Your task to perform on an android device: Open eBay Image 0: 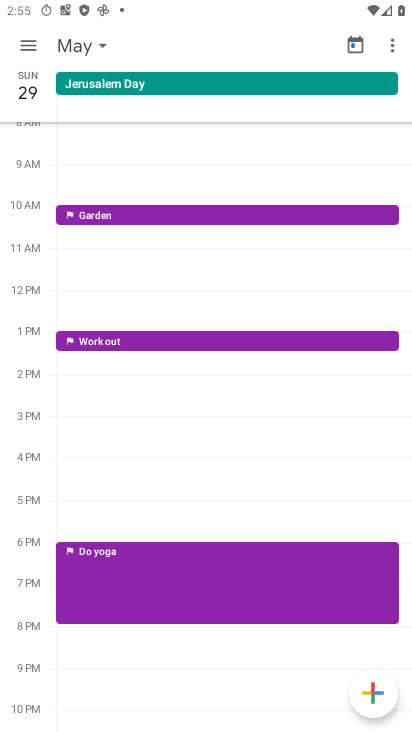
Step 0: press home button
Your task to perform on an android device: Open eBay Image 1: 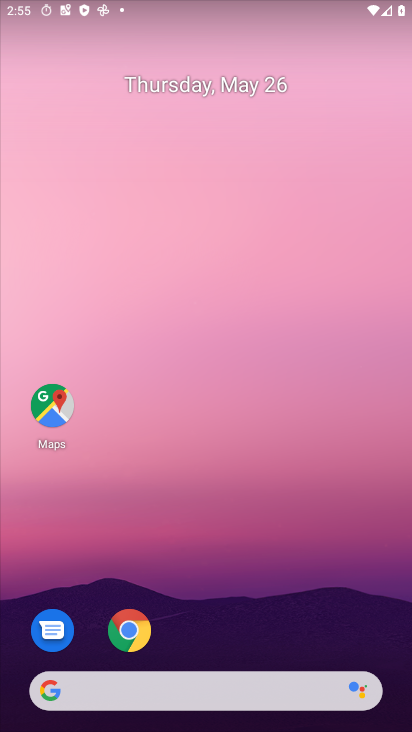
Step 1: click (129, 627)
Your task to perform on an android device: Open eBay Image 2: 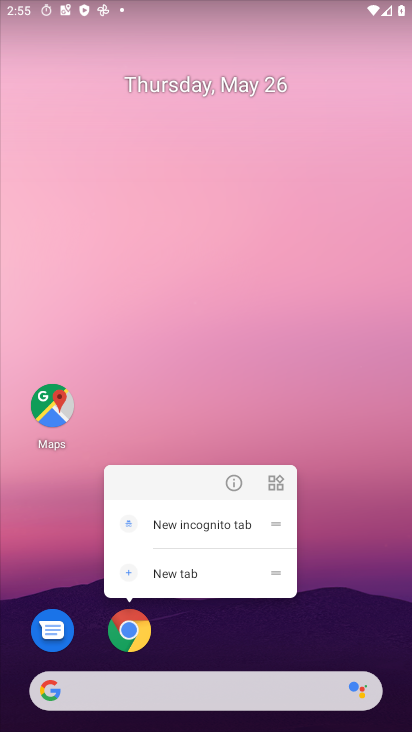
Step 2: click (142, 638)
Your task to perform on an android device: Open eBay Image 3: 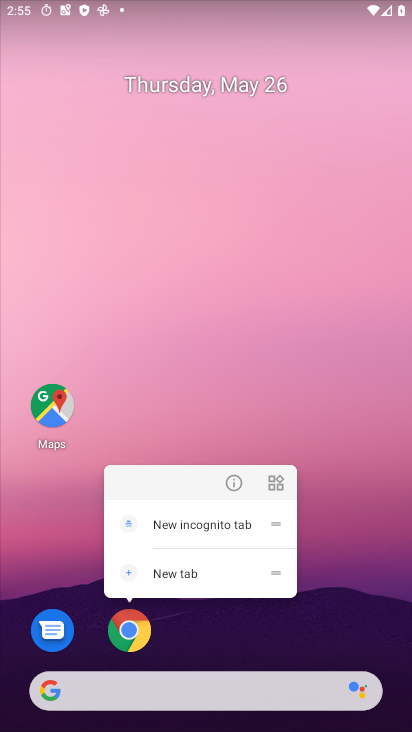
Step 3: click (145, 629)
Your task to perform on an android device: Open eBay Image 4: 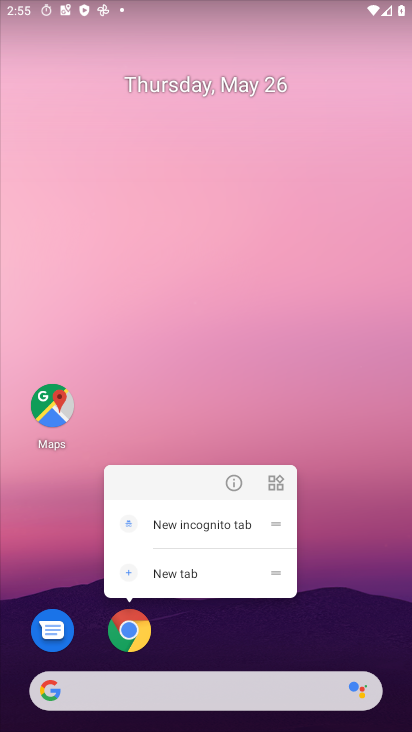
Step 4: click (145, 629)
Your task to perform on an android device: Open eBay Image 5: 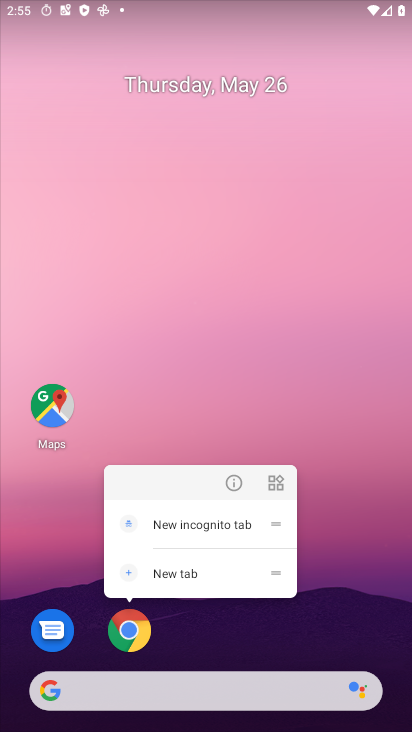
Step 5: click (146, 626)
Your task to perform on an android device: Open eBay Image 6: 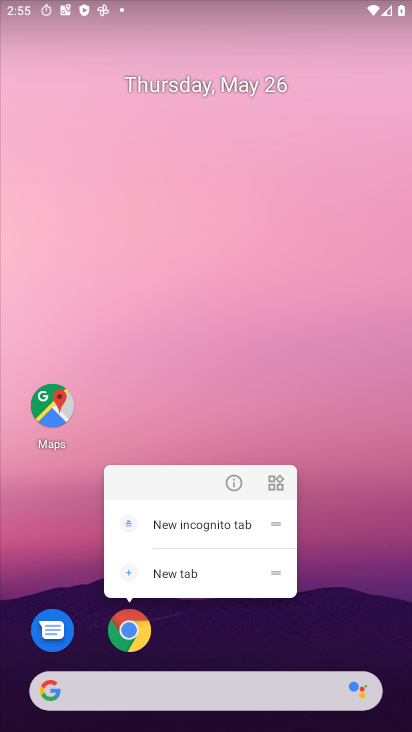
Step 6: click (153, 622)
Your task to perform on an android device: Open eBay Image 7: 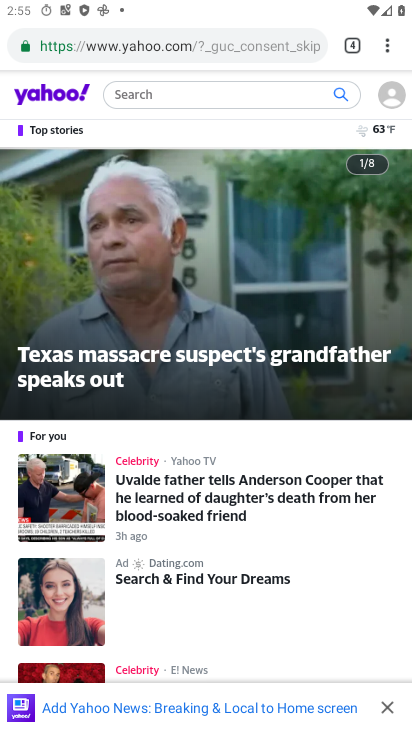
Step 7: click (353, 48)
Your task to perform on an android device: Open eBay Image 8: 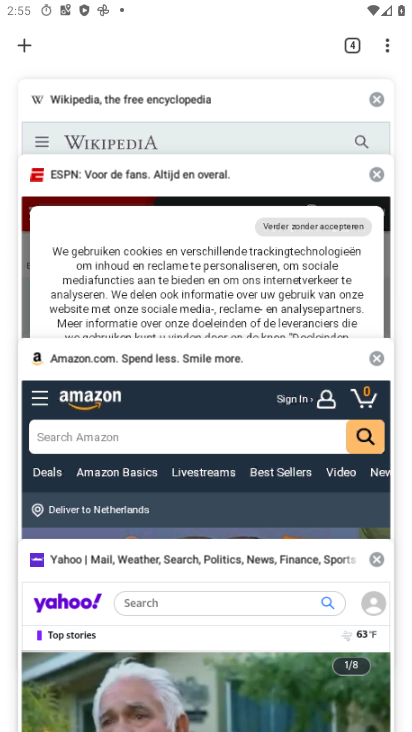
Step 8: click (24, 48)
Your task to perform on an android device: Open eBay Image 9: 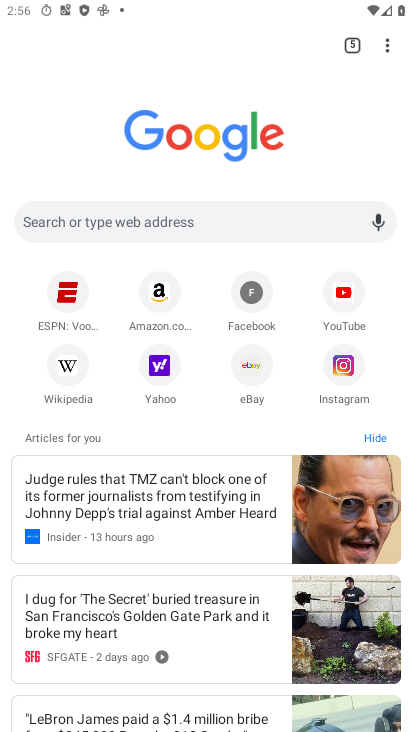
Step 9: click (246, 370)
Your task to perform on an android device: Open eBay Image 10: 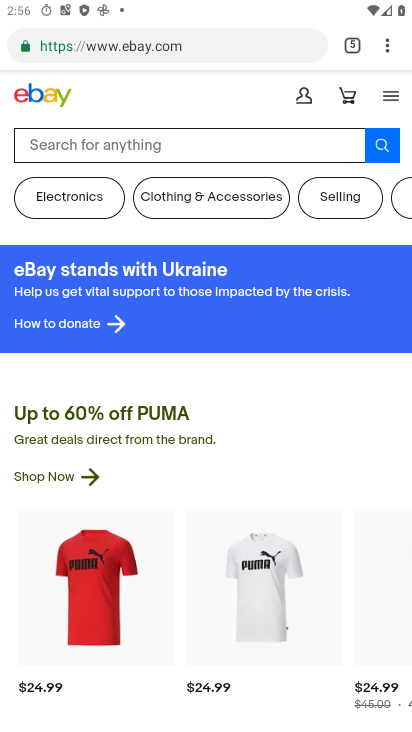
Step 10: task complete